Your task to perform on an android device: turn notification dots off Image 0: 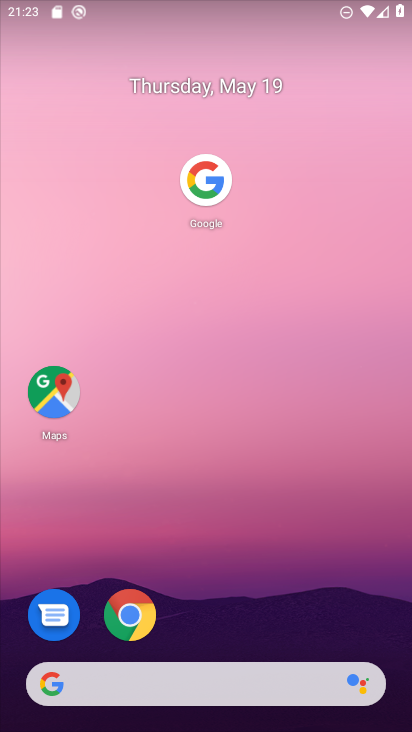
Step 0: drag from (238, 570) to (189, 44)
Your task to perform on an android device: turn notification dots off Image 1: 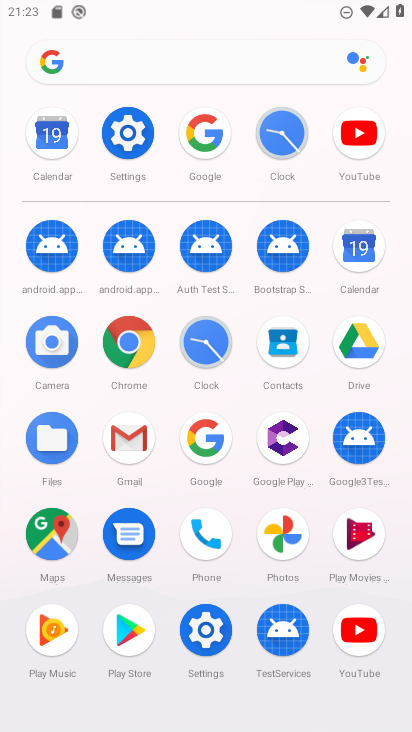
Step 1: click (136, 144)
Your task to perform on an android device: turn notification dots off Image 2: 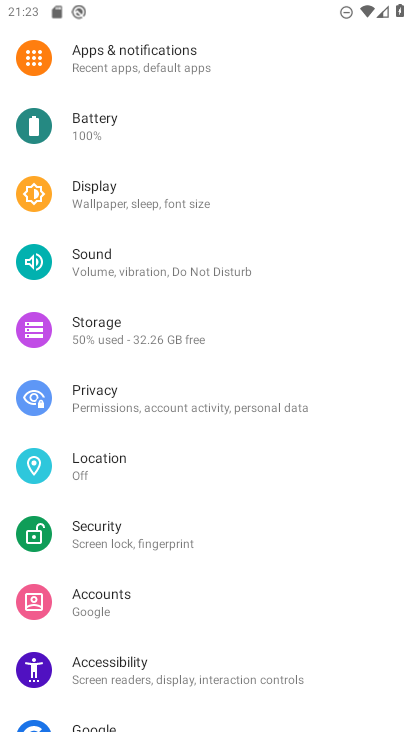
Step 2: click (105, 60)
Your task to perform on an android device: turn notification dots off Image 3: 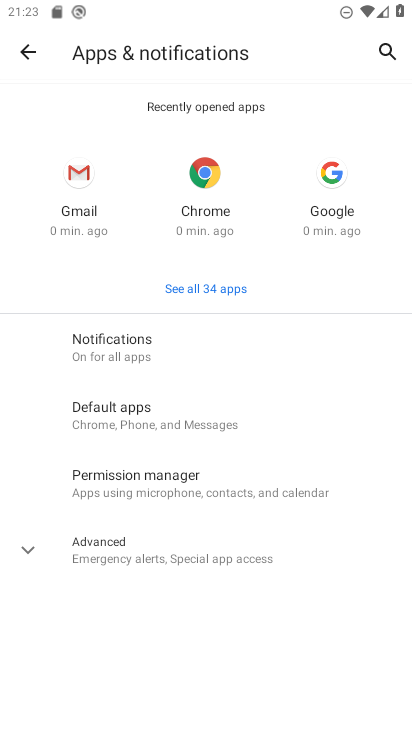
Step 3: click (146, 348)
Your task to perform on an android device: turn notification dots off Image 4: 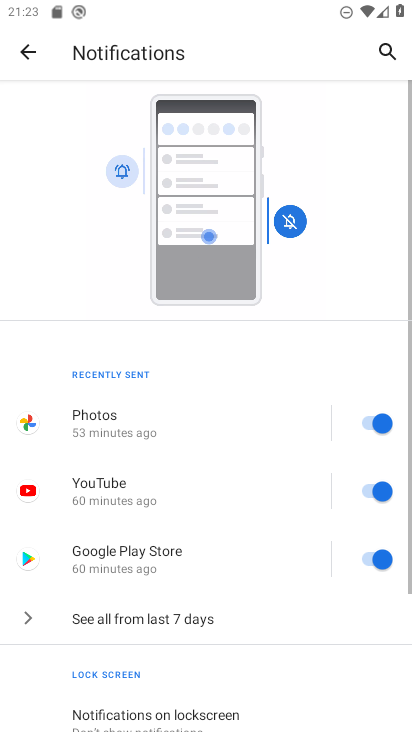
Step 4: drag from (231, 586) to (235, 124)
Your task to perform on an android device: turn notification dots off Image 5: 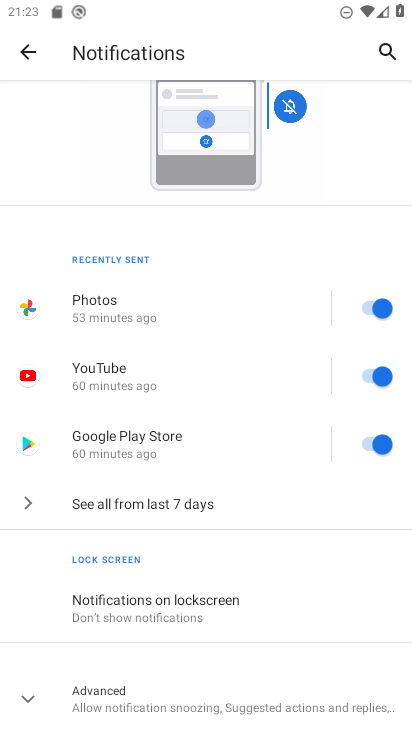
Step 5: click (91, 701)
Your task to perform on an android device: turn notification dots off Image 6: 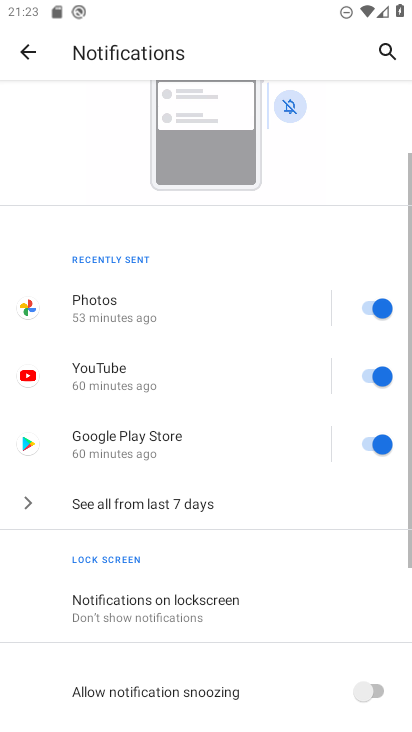
Step 6: drag from (303, 663) to (291, 286)
Your task to perform on an android device: turn notification dots off Image 7: 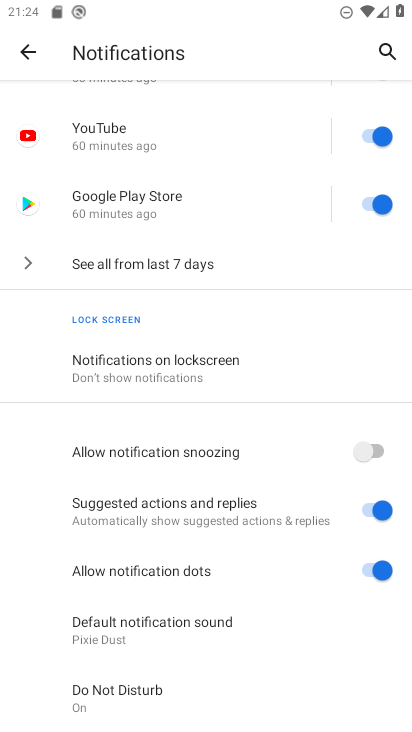
Step 7: click (381, 565)
Your task to perform on an android device: turn notification dots off Image 8: 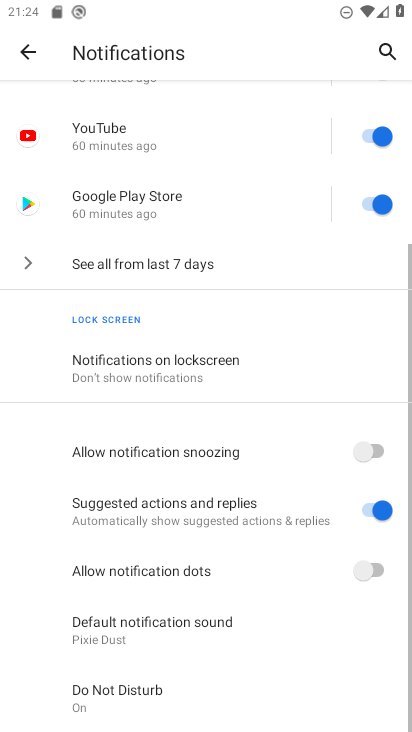
Step 8: task complete